Your task to perform on an android device: turn on priority inbox in the gmail app Image 0: 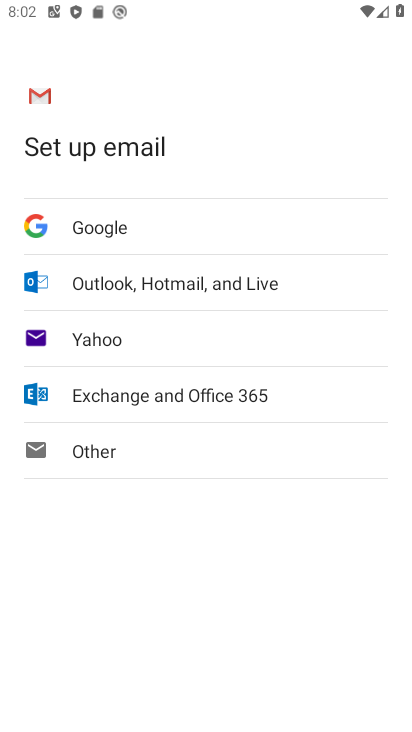
Step 0: press home button
Your task to perform on an android device: turn on priority inbox in the gmail app Image 1: 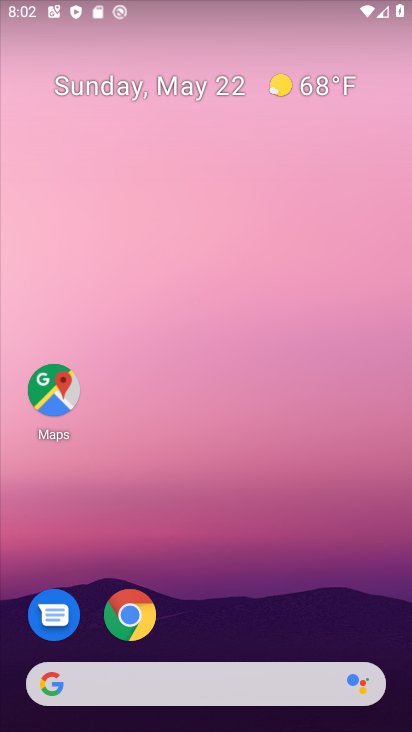
Step 1: drag from (224, 639) to (139, 152)
Your task to perform on an android device: turn on priority inbox in the gmail app Image 2: 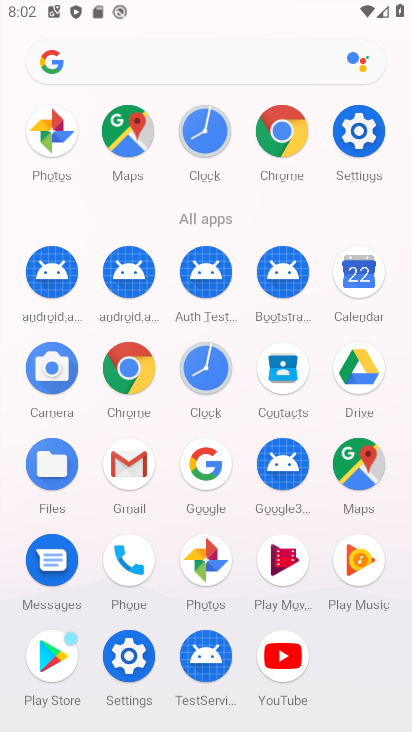
Step 2: click (349, 143)
Your task to perform on an android device: turn on priority inbox in the gmail app Image 3: 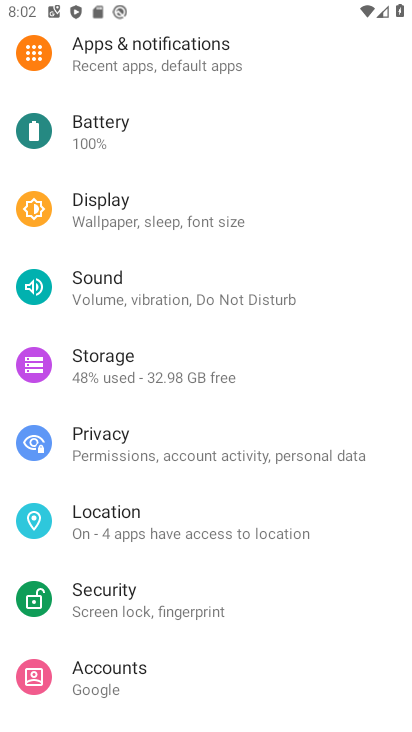
Step 3: press home button
Your task to perform on an android device: turn on priority inbox in the gmail app Image 4: 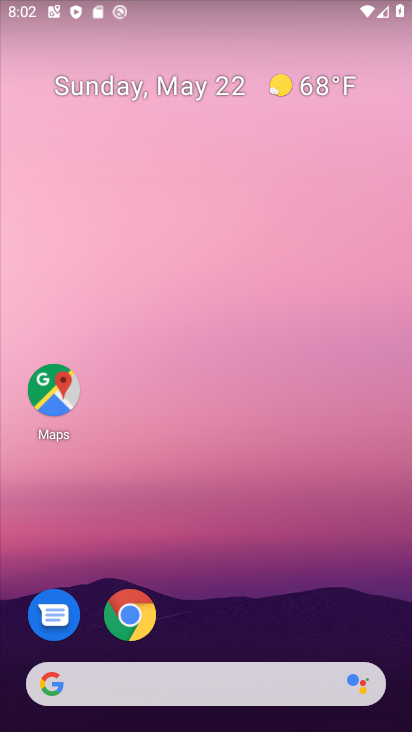
Step 4: drag from (248, 647) to (177, 134)
Your task to perform on an android device: turn on priority inbox in the gmail app Image 5: 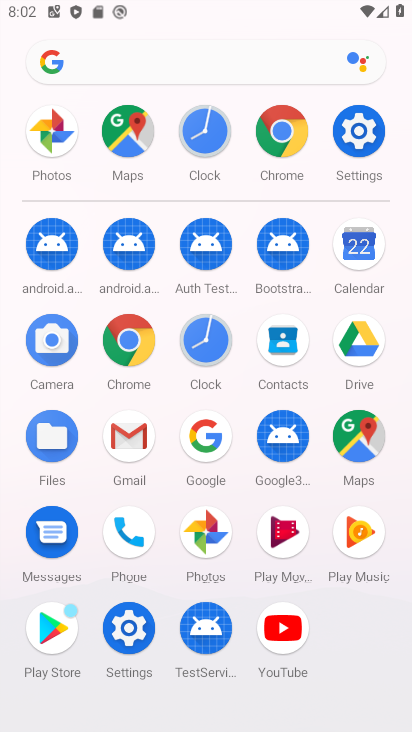
Step 5: click (132, 434)
Your task to perform on an android device: turn on priority inbox in the gmail app Image 6: 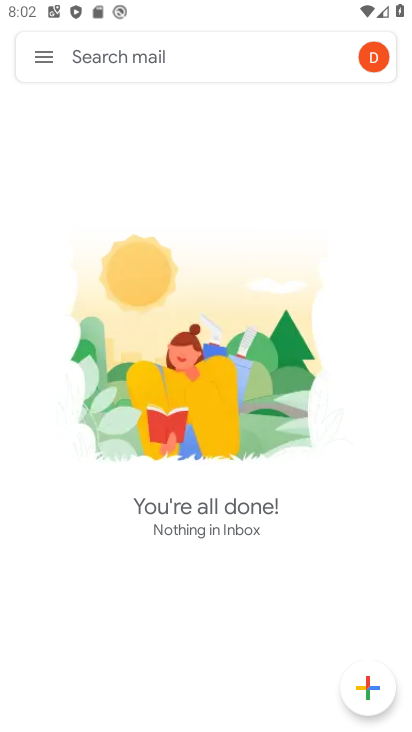
Step 6: click (37, 49)
Your task to perform on an android device: turn on priority inbox in the gmail app Image 7: 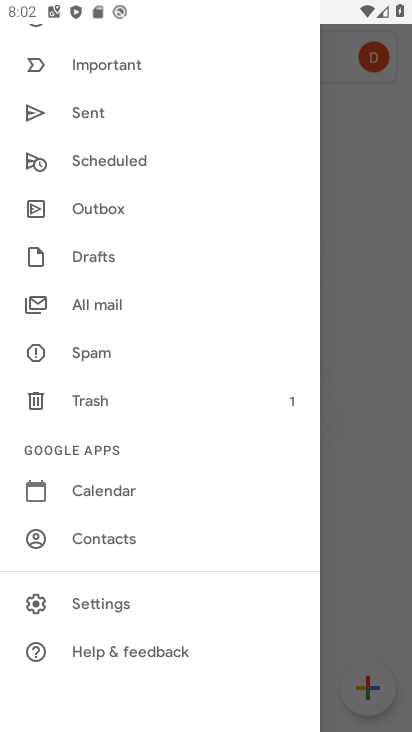
Step 7: click (67, 610)
Your task to perform on an android device: turn on priority inbox in the gmail app Image 8: 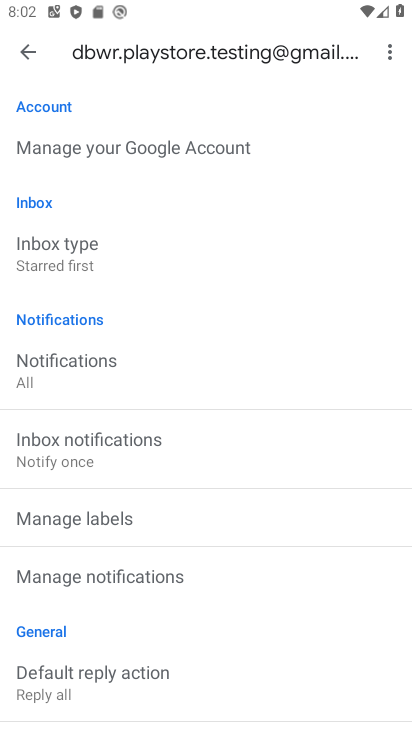
Step 8: click (113, 281)
Your task to perform on an android device: turn on priority inbox in the gmail app Image 9: 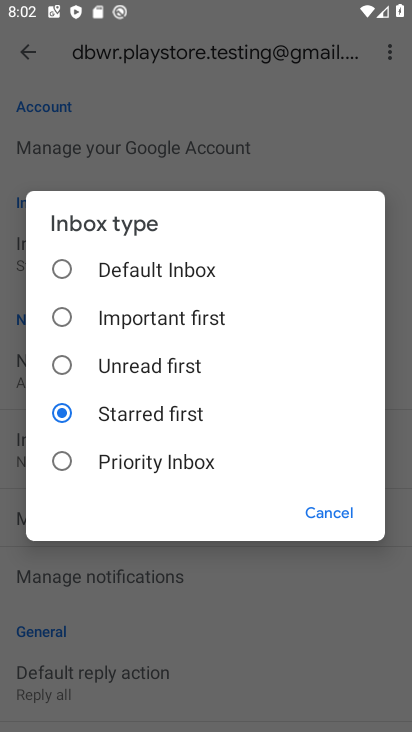
Step 9: click (105, 443)
Your task to perform on an android device: turn on priority inbox in the gmail app Image 10: 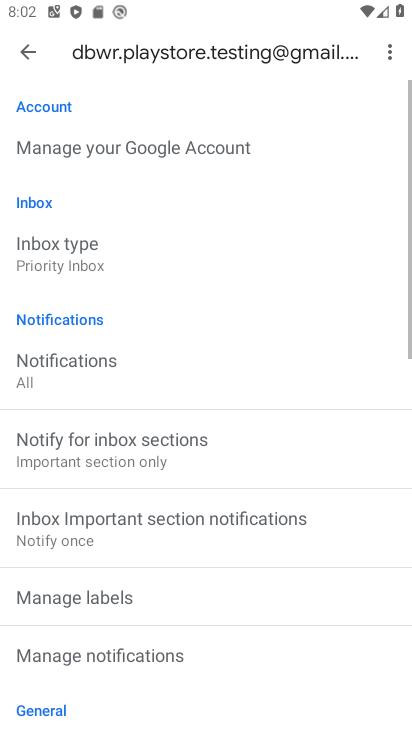
Step 10: task complete